Your task to perform on an android device: turn pop-ups off in chrome Image 0: 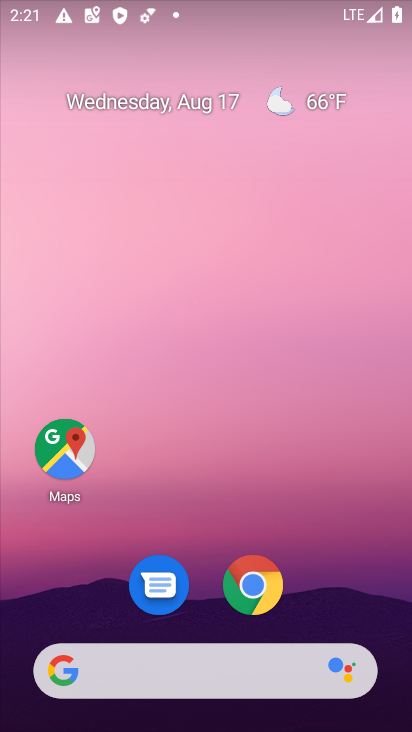
Step 0: click (255, 590)
Your task to perform on an android device: turn pop-ups off in chrome Image 1: 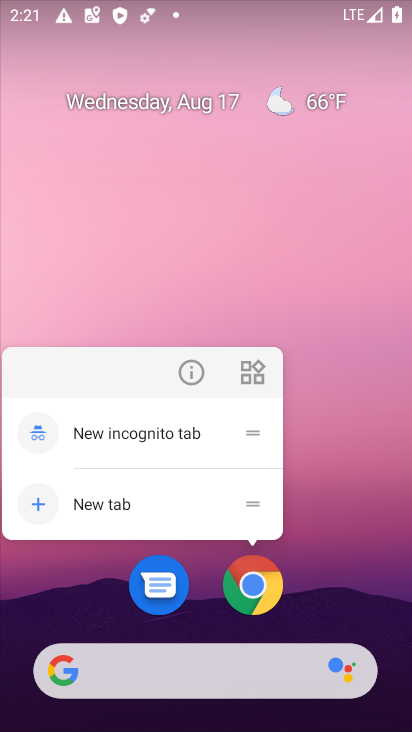
Step 1: click (255, 583)
Your task to perform on an android device: turn pop-ups off in chrome Image 2: 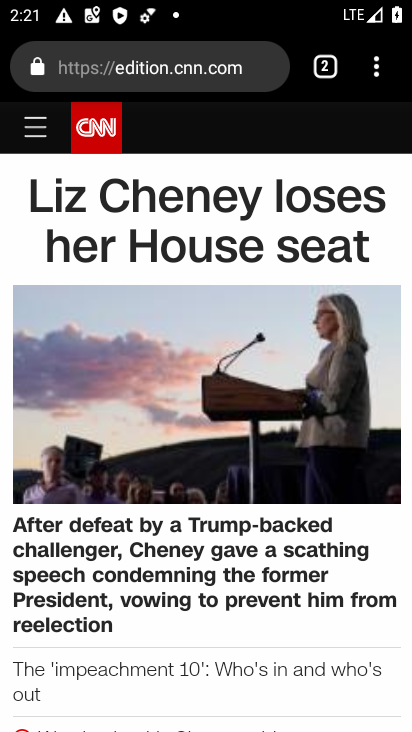
Step 2: click (378, 71)
Your task to perform on an android device: turn pop-ups off in chrome Image 3: 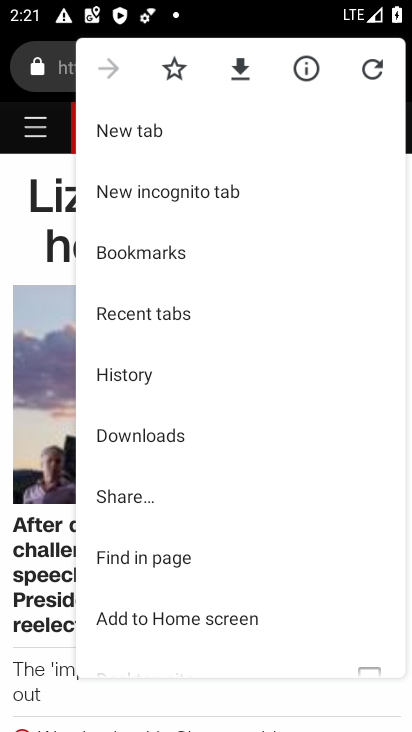
Step 3: drag from (267, 497) to (290, 138)
Your task to perform on an android device: turn pop-ups off in chrome Image 4: 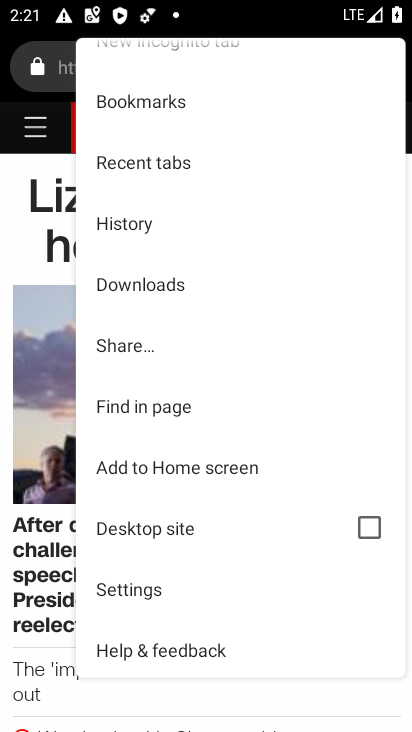
Step 4: click (175, 584)
Your task to perform on an android device: turn pop-ups off in chrome Image 5: 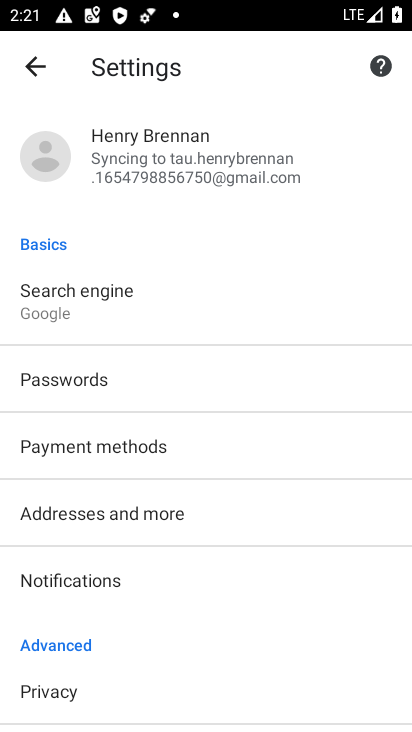
Step 5: drag from (171, 639) to (172, 156)
Your task to perform on an android device: turn pop-ups off in chrome Image 6: 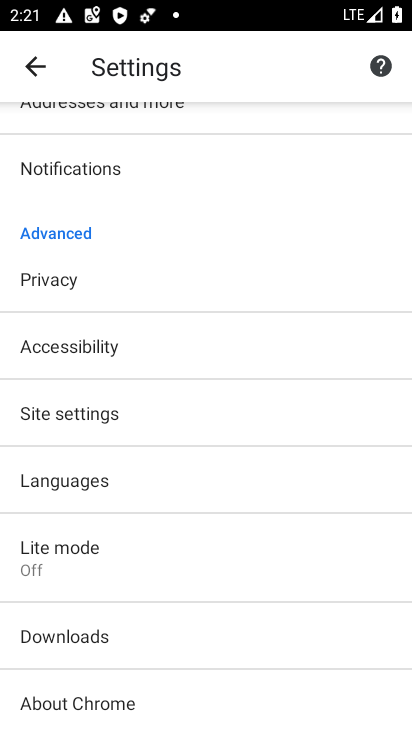
Step 6: drag from (222, 608) to (227, 305)
Your task to perform on an android device: turn pop-ups off in chrome Image 7: 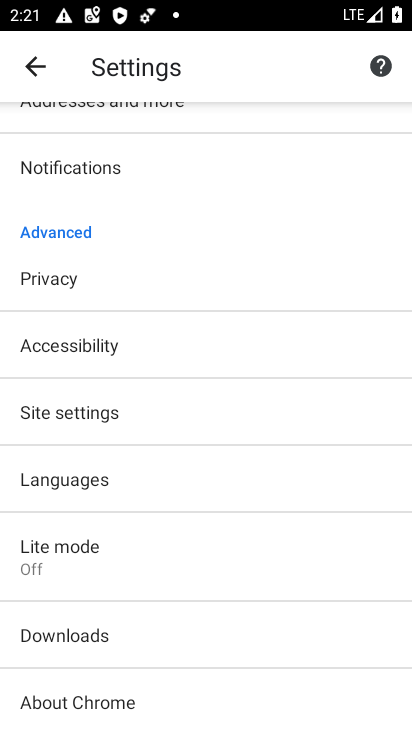
Step 7: click (215, 402)
Your task to perform on an android device: turn pop-ups off in chrome Image 8: 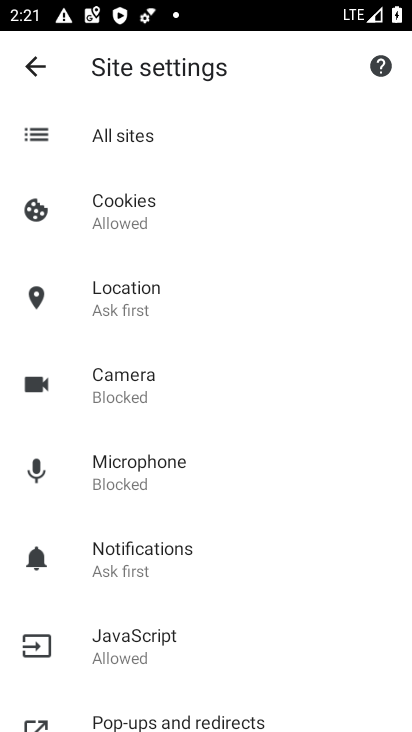
Step 8: drag from (257, 452) to (266, 255)
Your task to perform on an android device: turn pop-ups off in chrome Image 9: 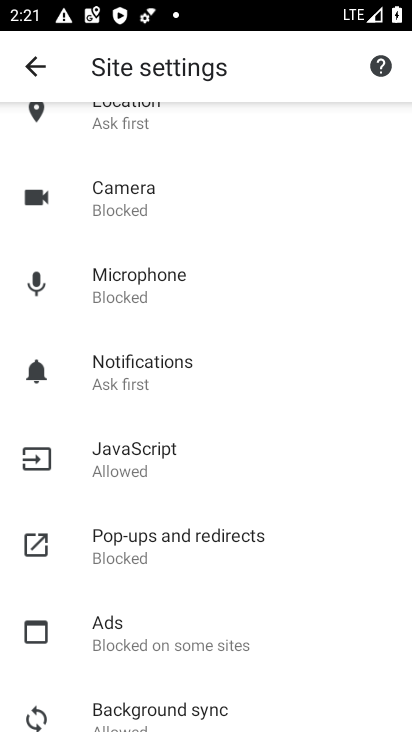
Step 9: click (234, 538)
Your task to perform on an android device: turn pop-ups off in chrome Image 10: 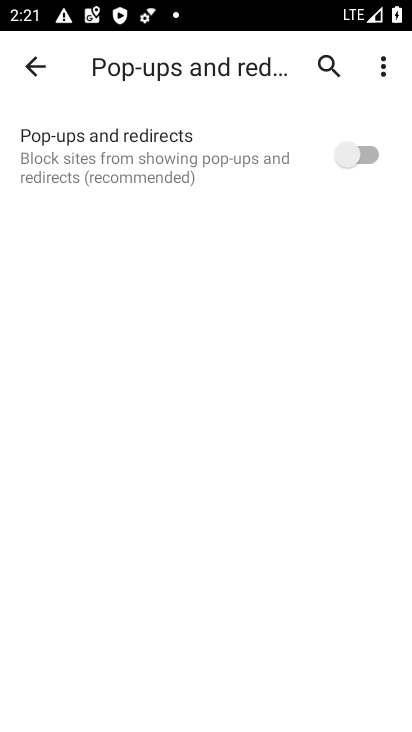
Step 10: task complete